Your task to perform on an android device: change the clock style Image 0: 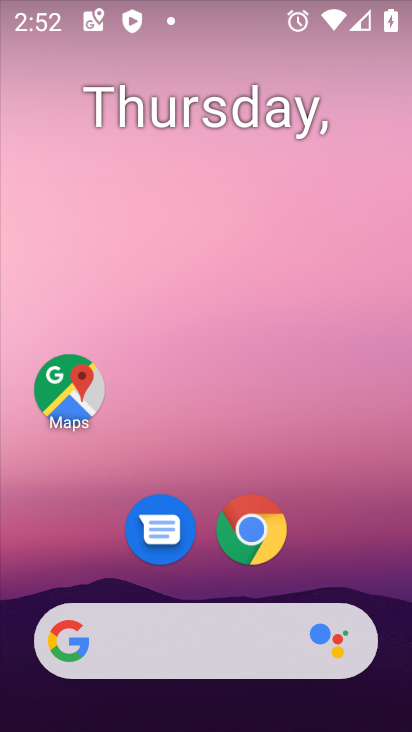
Step 0: drag from (249, 716) to (207, 116)
Your task to perform on an android device: change the clock style Image 1: 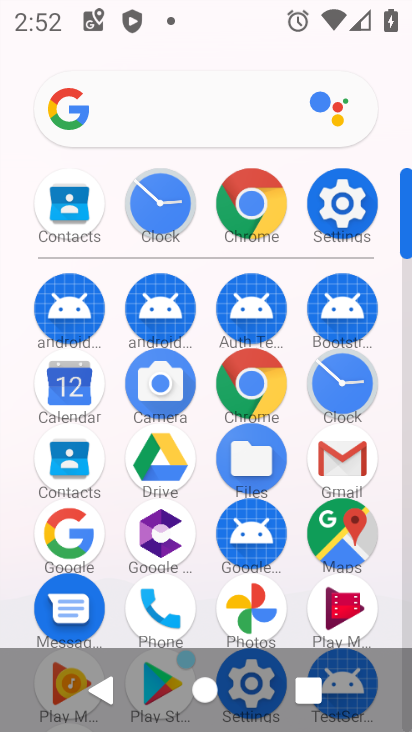
Step 1: click (329, 401)
Your task to perform on an android device: change the clock style Image 2: 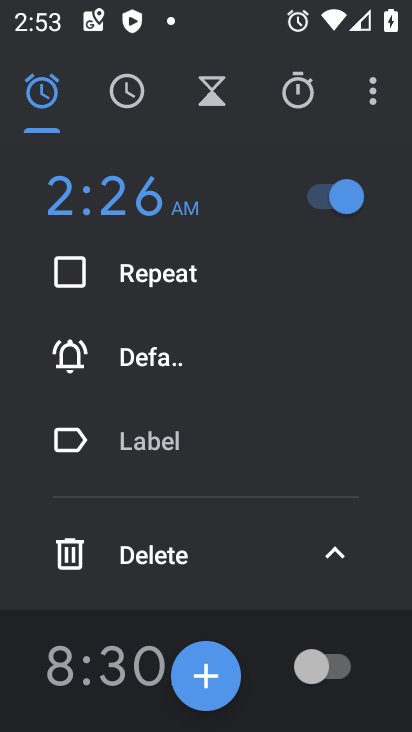
Step 2: click (360, 96)
Your task to perform on an android device: change the clock style Image 3: 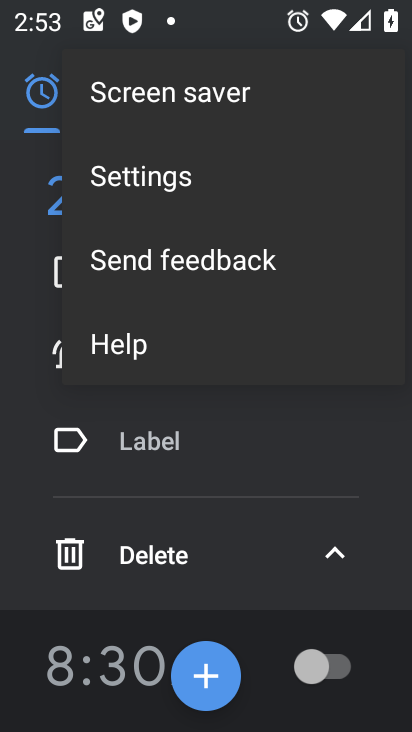
Step 3: click (182, 174)
Your task to perform on an android device: change the clock style Image 4: 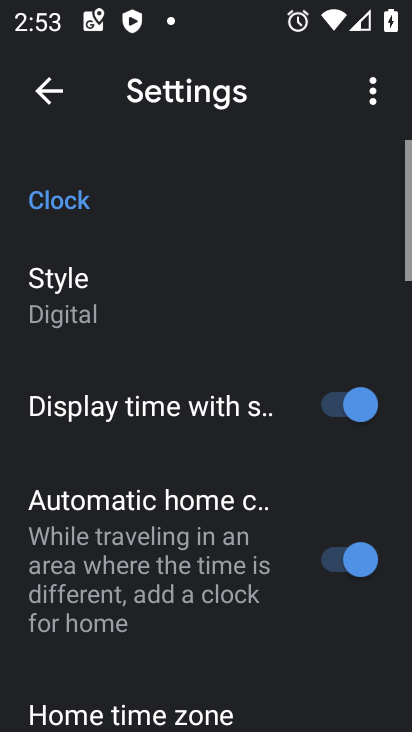
Step 4: click (60, 302)
Your task to perform on an android device: change the clock style Image 5: 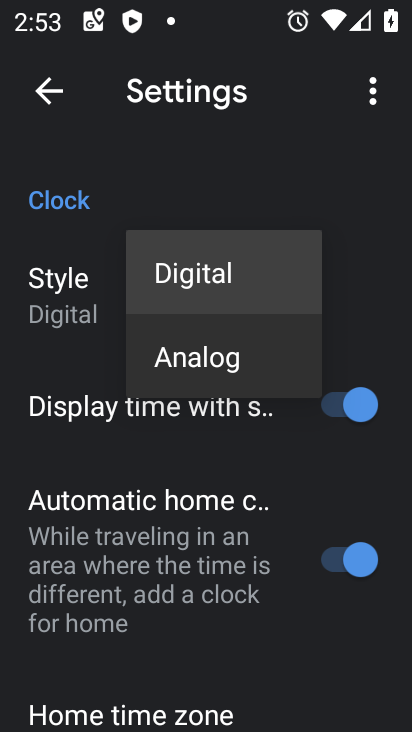
Step 5: click (234, 356)
Your task to perform on an android device: change the clock style Image 6: 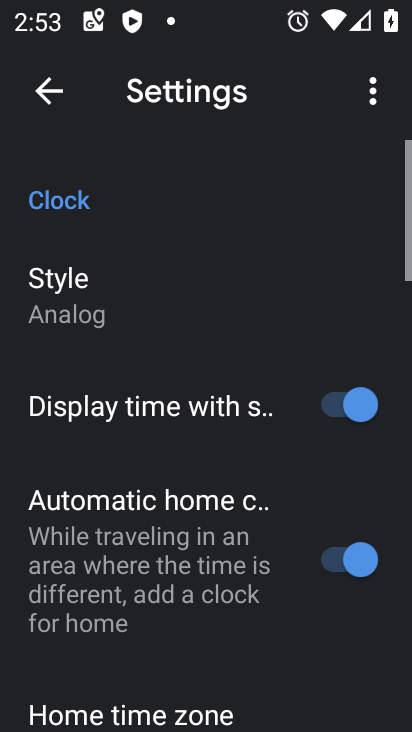
Step 6: task complete